Your task to perform on an android device: Go to Amazon Image 0: 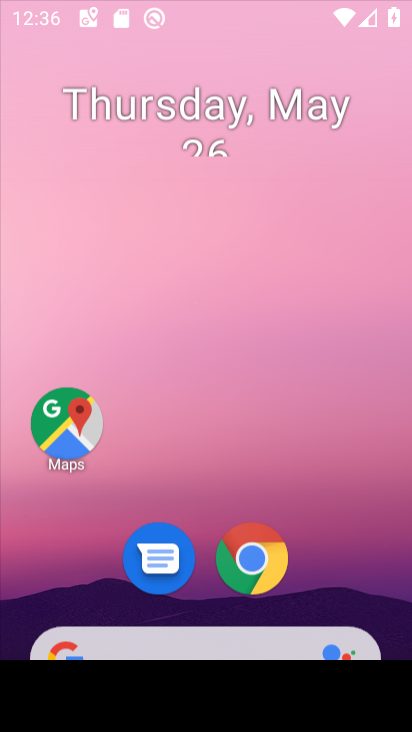
Step 0: press home button
Your task to perform on an android device: Go to Amazon Image 1: 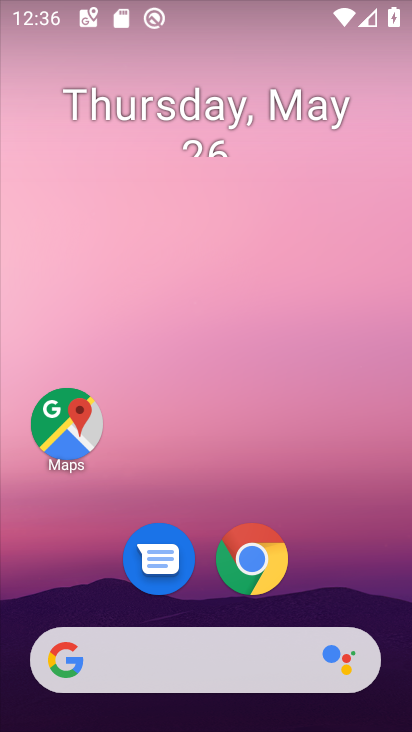
Step 1: click (66, 661)
Your task to perform on an android device: Go to Amazon Image 2: 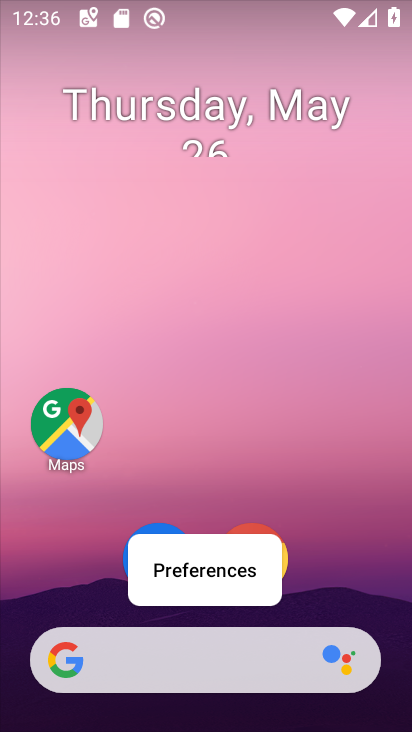
Step 2: click (66, 661)
Your task to perform on an android device: Go to Amazon Image 3: 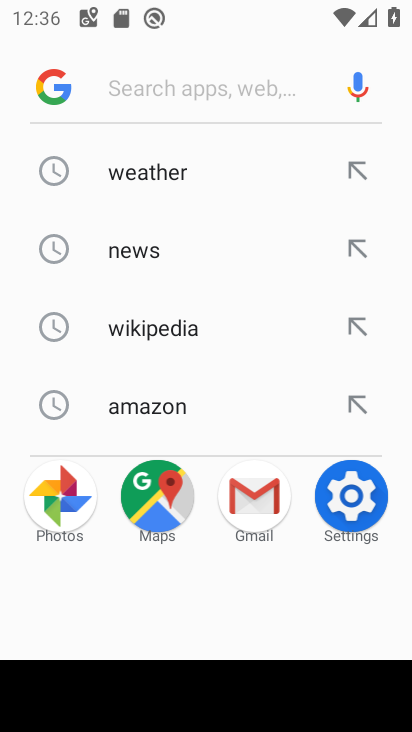
Step 3: click (158, 410)
Your task to perform on an android device: Go to Amazon Image 4: 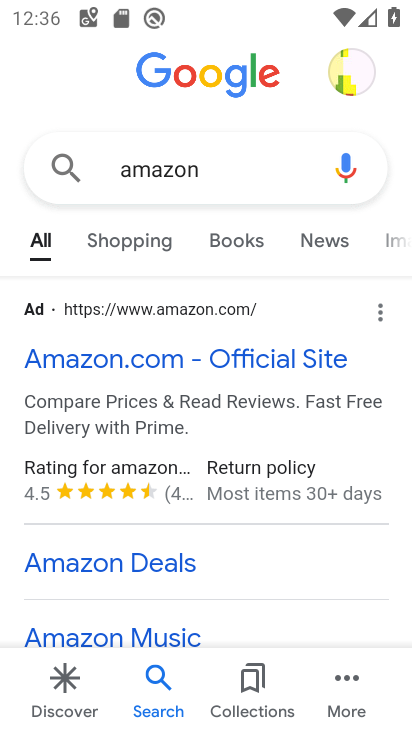
Step 4: click (167, 362)
Your task to perform on an android device: Go to Amazon Image 5: 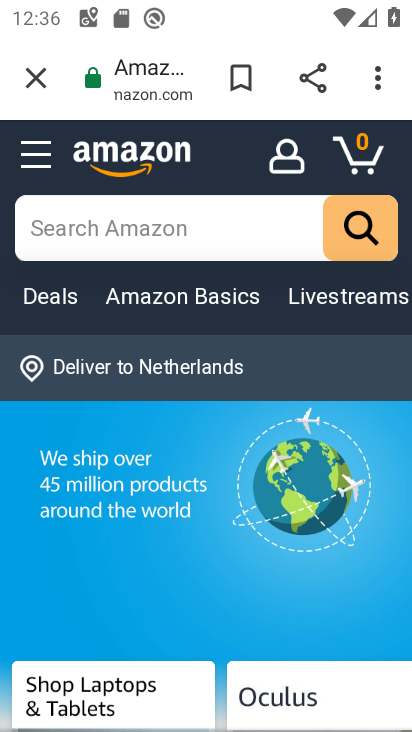
Step 5: task complete